Your task to perform on an android device: turn off picture-in-picture Image 0: 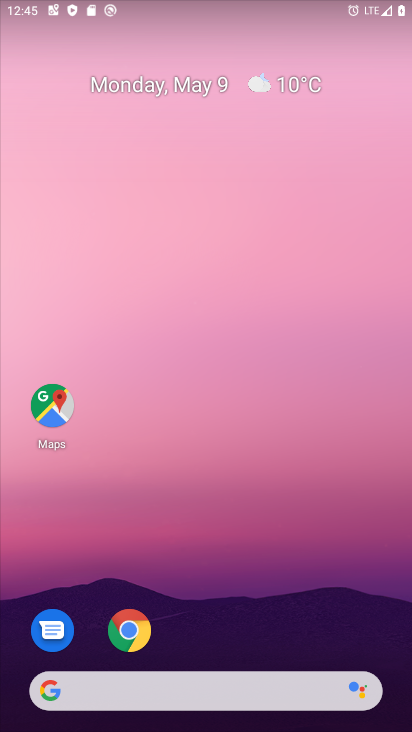
Step 0: drag from (310, 624) to (261, 41)
Your task to perform on an android device: turn off picture-in-picture Image 1: 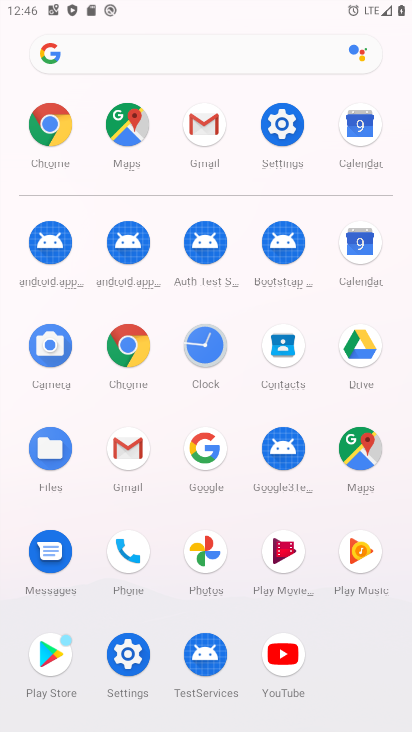
Step 1: click (137, 341)
Your task to perform on an android device: turn off picture-in-picture Image 2: 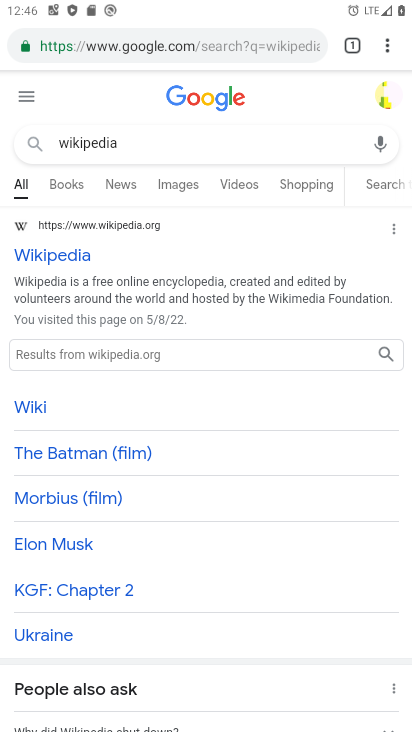
Step 2: task complete